Your task to perform on an android device: turn off data saver in the chrome app Image 0: 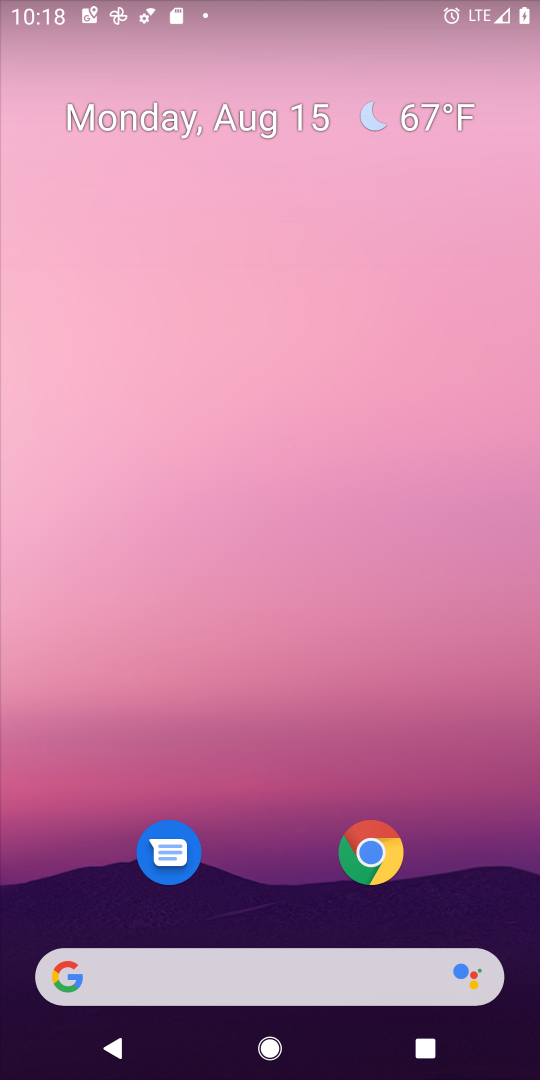
Step 0: click (371, 853)
Your task to perform on an android device: turn off data saver in the chrome app Image 1: 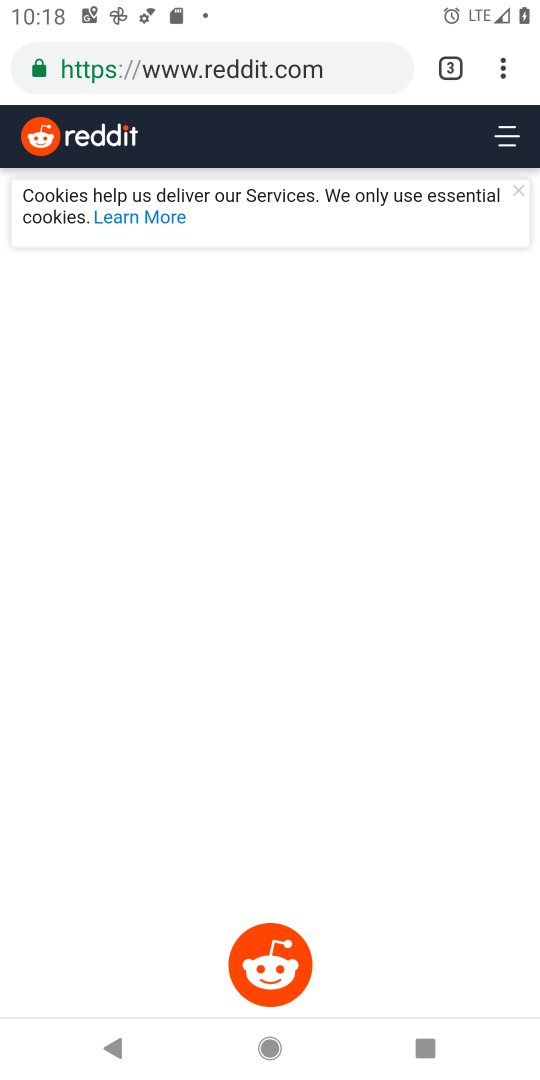
Step 1: click (508, 78)
Your task to perform on an android device: turn off data saver in the chrome app Image 2: 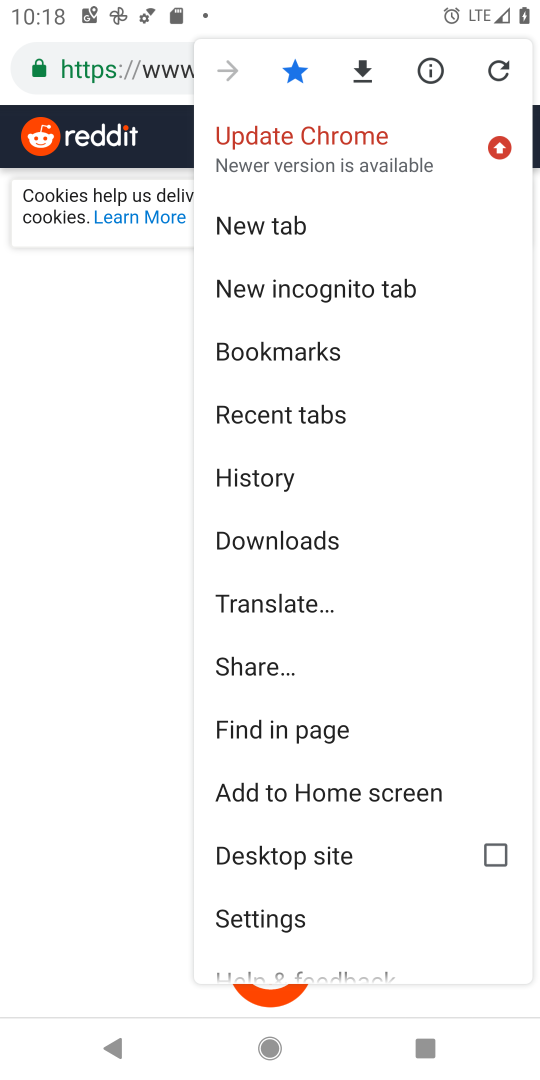
Step 2: click (278, 917)
Your task to perform on an android device: turn off data saver in the chrome app Image 3: 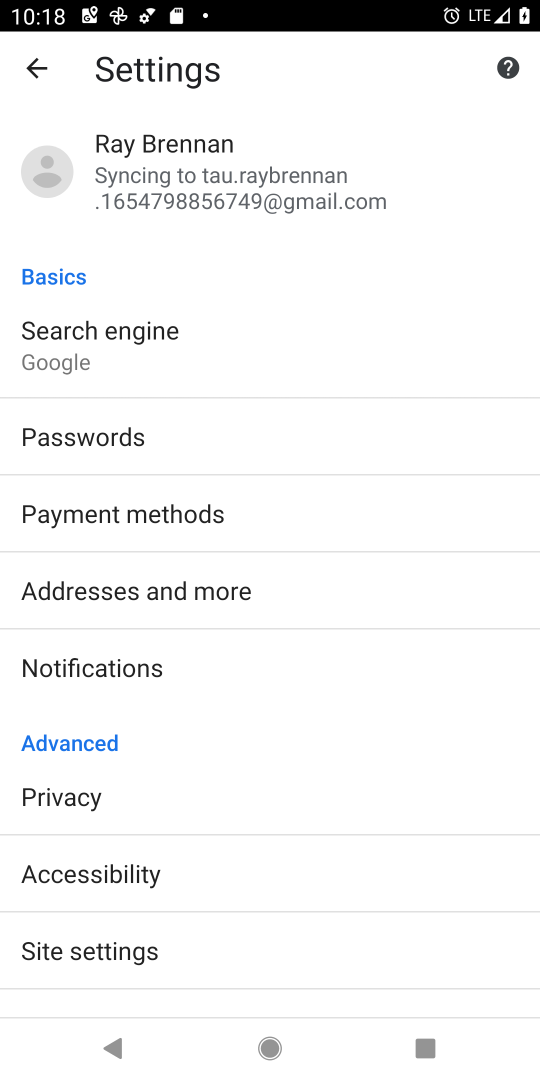
Step 3: drag from (189, 884) to (210, 714)
Your task to perform on an android device: turn off data saver in the chrome app Image 4: 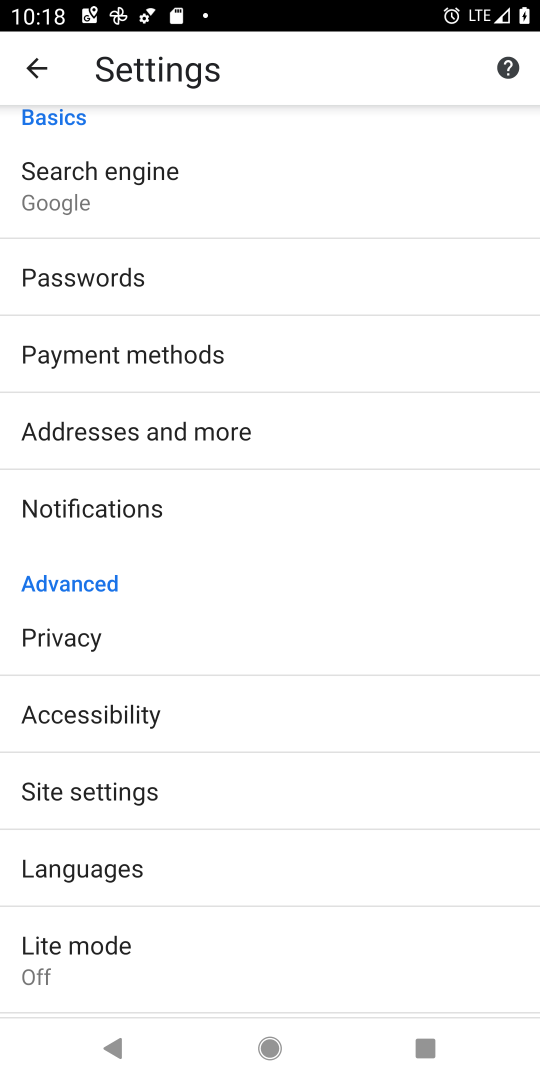
Step 4: click (115, 934)
Your task to perform on an android device: turn off data saver in the chrome app Image 5: 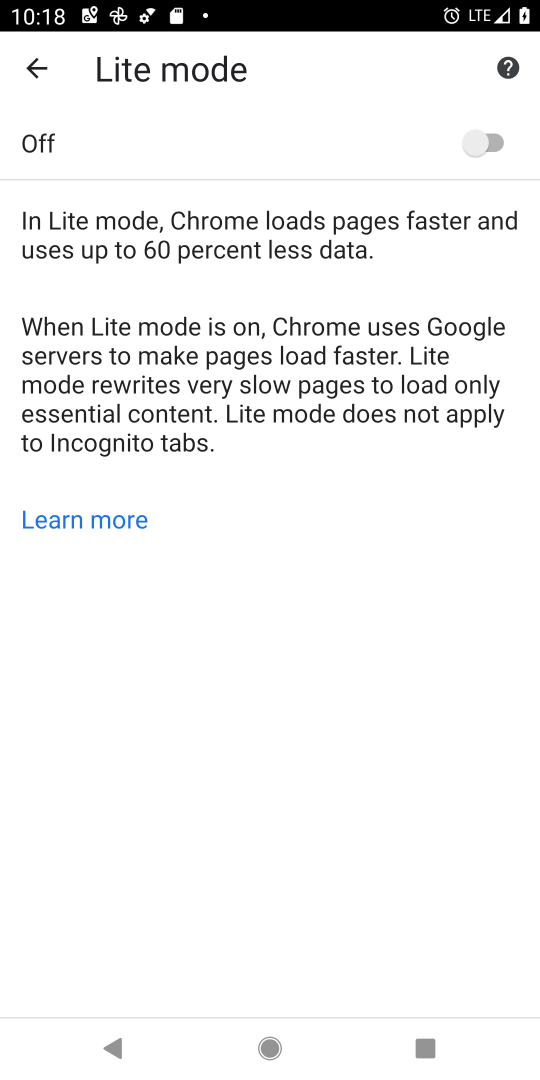
Step 5: task complete